Your task to perform on an android device: What is the recent news? Image 0: 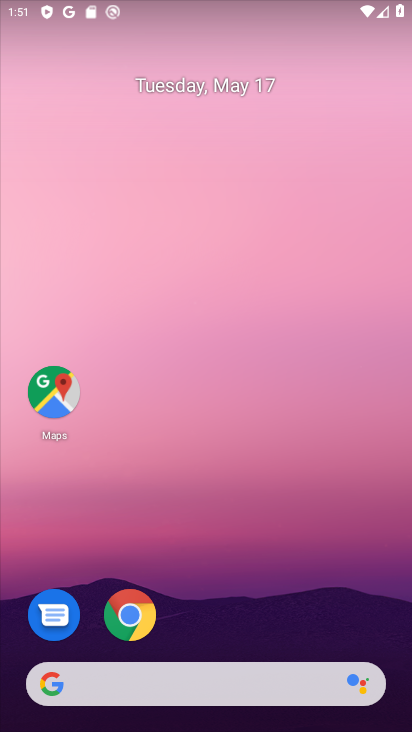
Step 0: click (124, 626)
Your task to perform on an android device: What is the recent news? Image 1: 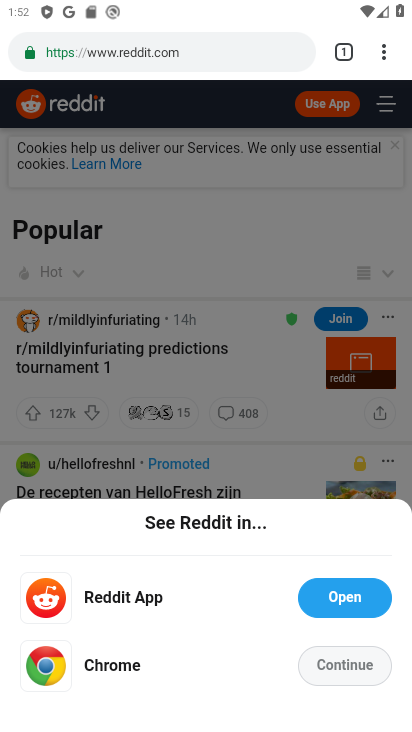
Step 1: click (257, 28)
Your task to perform on an android device: What is the recent news? Image 2: 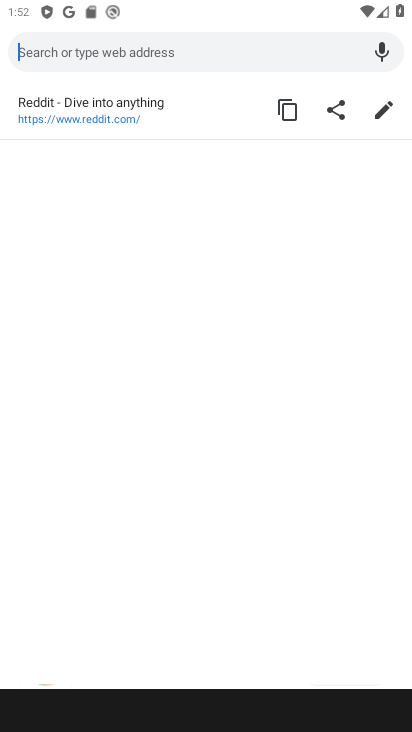
Step 2: click (257, 41)
Your task to perform on an android device: What is the recent news? Image 3: 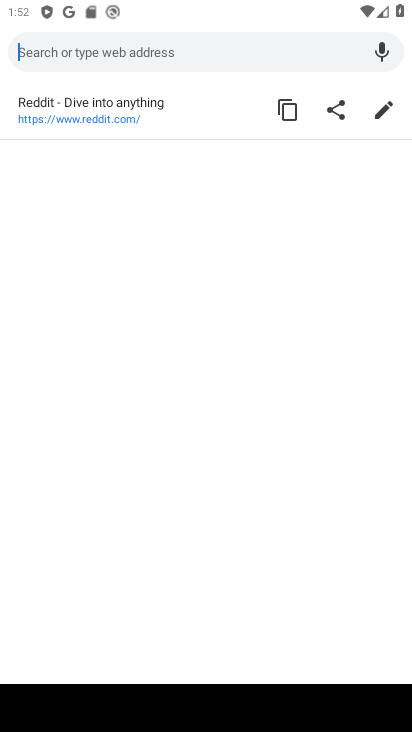
Step 3: click (257, 41)
Your task to perform on an android device: What is the recent news? Image 4: 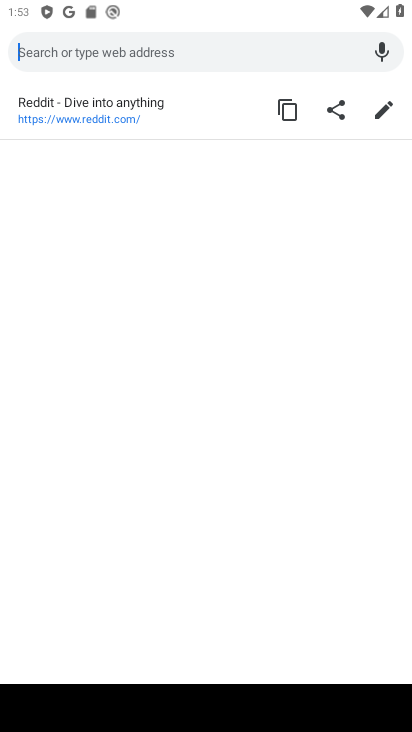
Step 4: click (129, 57)
Your task to perform on an android device: What is the recent news? Image 5: 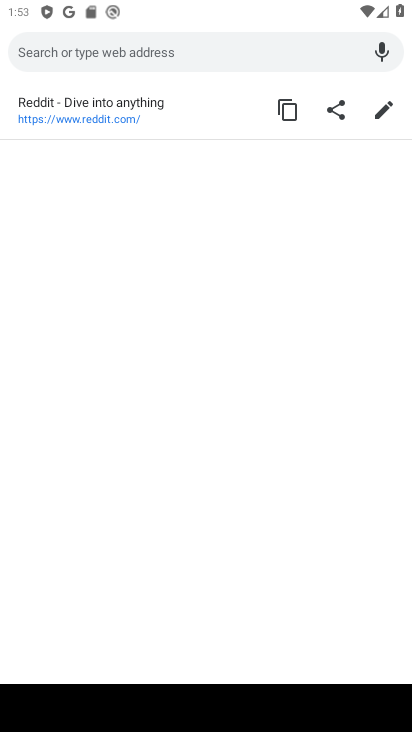
Step 5: click (198, 60)
Your task to perform on an android device: What is the recent news? Image 6: 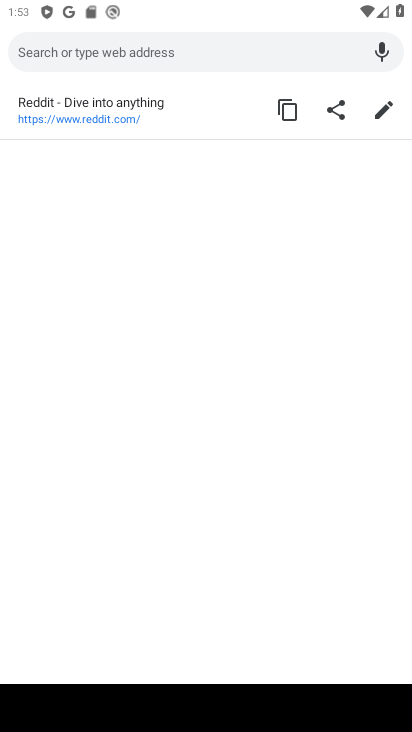
Step 6: type "What is the recent news?"
Your task to perform on an android device: What is the recent news? Image 7: 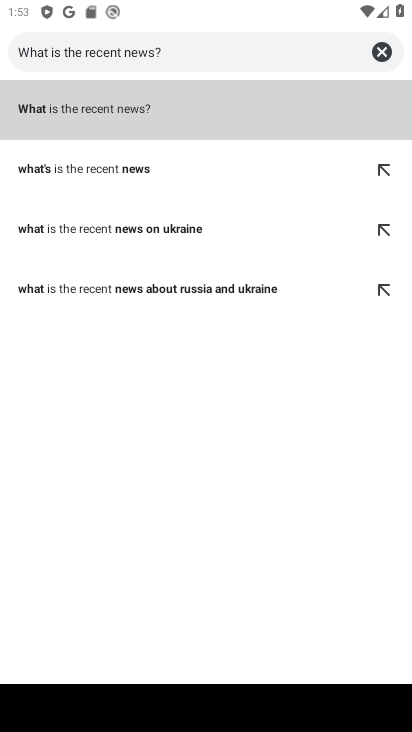
Step 7: click (192, 110)
Your task to perform on an android device: What is the recent news? Image 8: 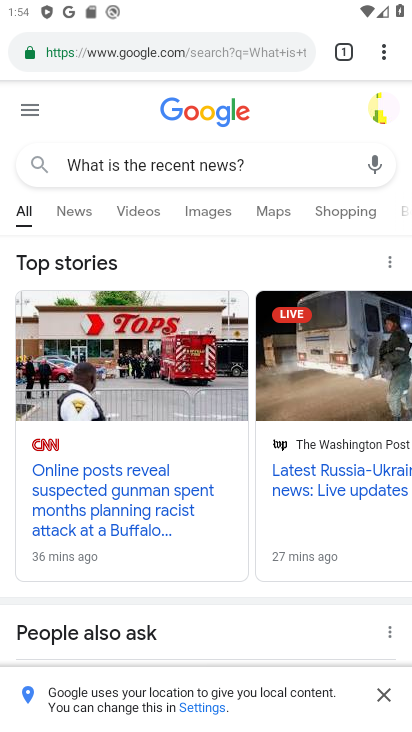
Step 8: task complete